Your task to perform on an android device: turn off airplane mode Image 0: 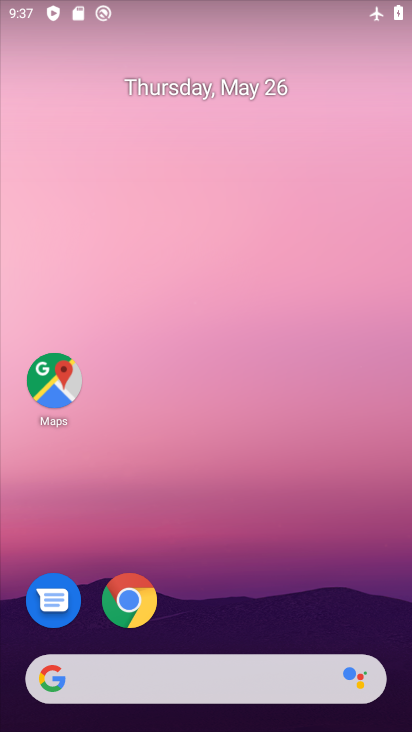
Step 0: drag from (274, 568) to (300, 203)
Your task to perform on an android device: turn off airplane mode Image 1: 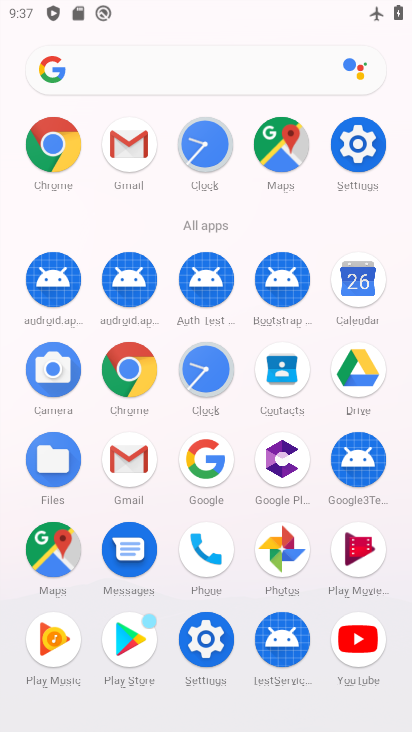
Step 1: click (354, 137)
Your task to perform on an android device: turn off airplane mode Image 2: 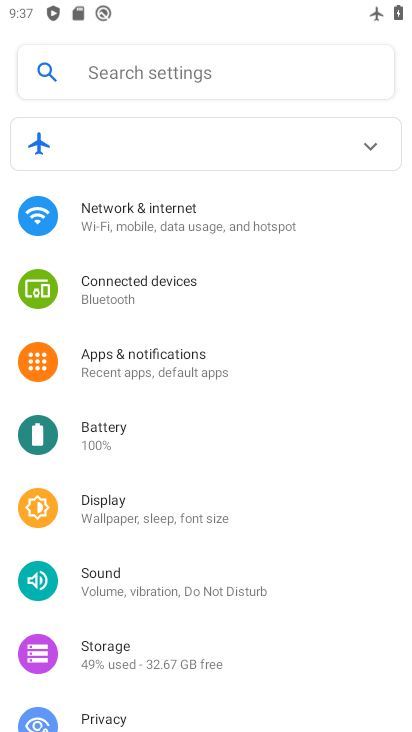
Step 2: click (262, 203)
Your task to perform on an android device: turn off airplane mode Image 3: 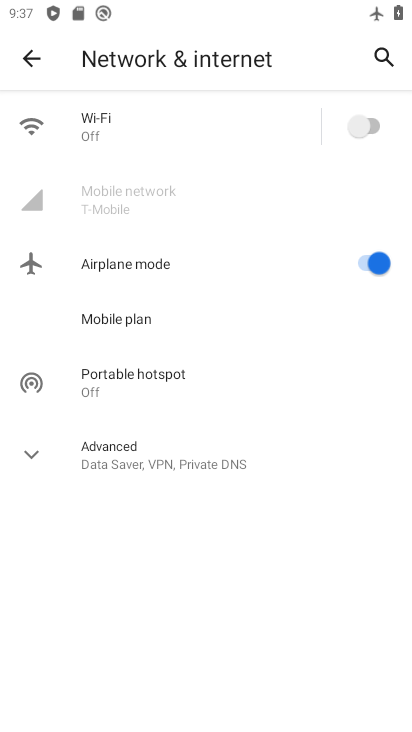
Step 3: click (353, 254)
Your task to perform on an android device: turn off airplane mode Image 4: 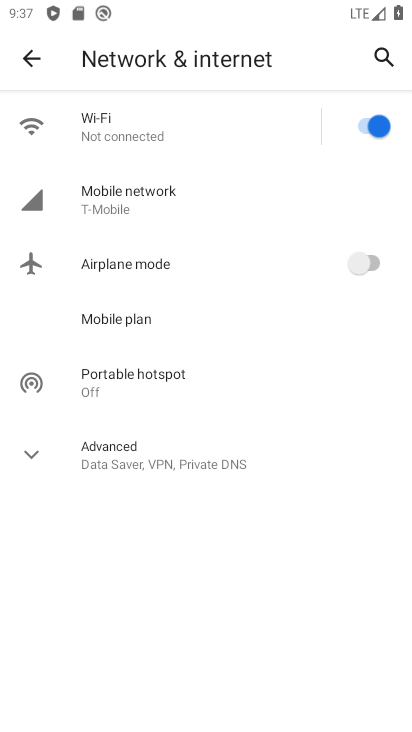
Step 4: task complete